Your task to perform on an android device: Search for Italian restaurants on Maps Image 0: 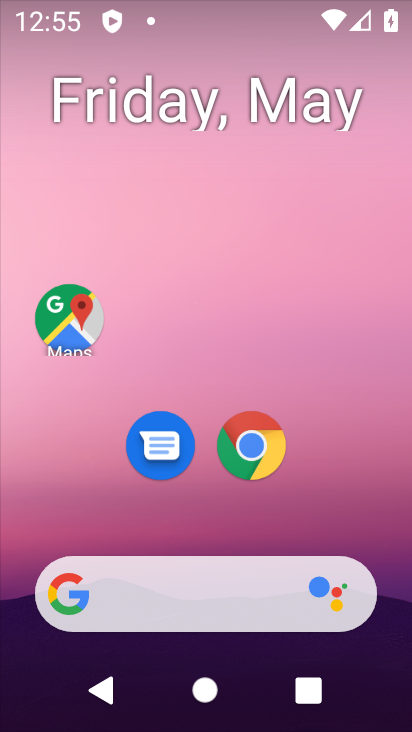
Step 0: click (68, 298)
Your task to perform on an android device: Search for Italian restaurants on Maps Image 1: 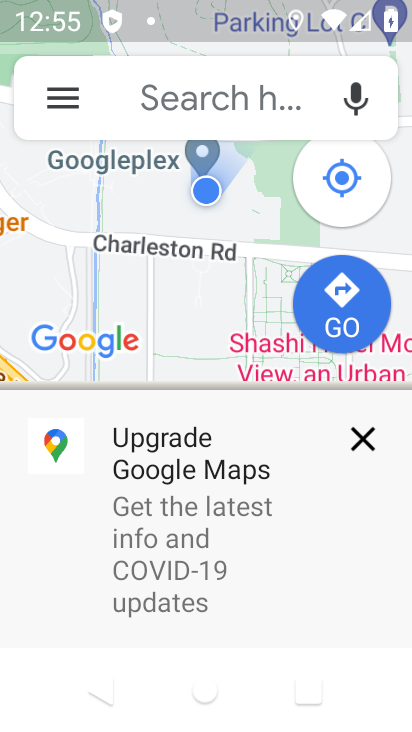
Step 1: click (169, 98)
Your task to perform on an android device: Search for Italian restaurants on Maps Image 2: 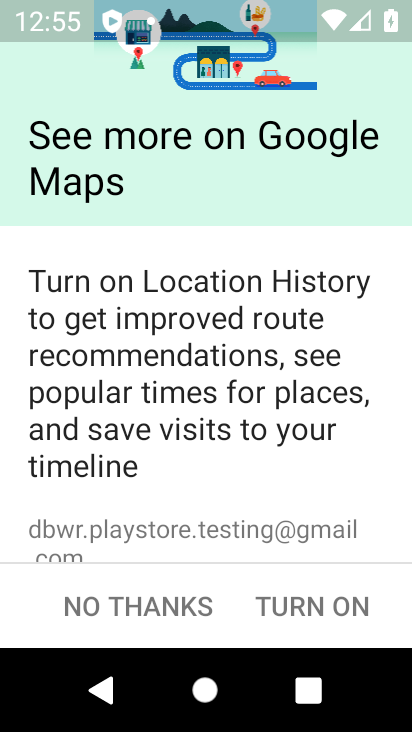
Step 2: click (196, 595)
Your task to perform on an android device: Search for Italian restaurants on Maps Image 3: 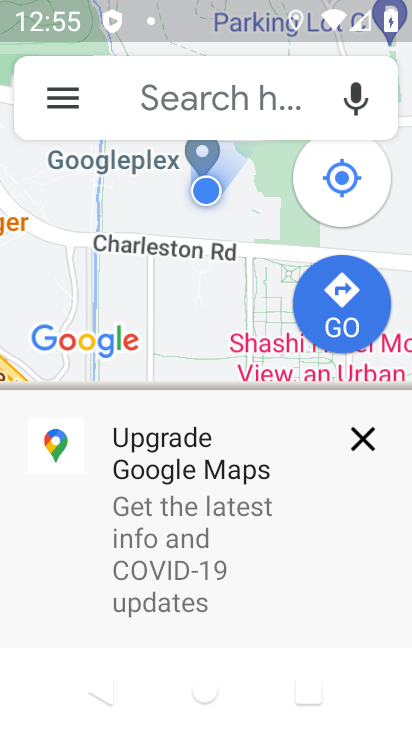
Step 3: click (210, 106)
Your task to perform on an android device: Search for Italian restaurants on Maps Image 4: 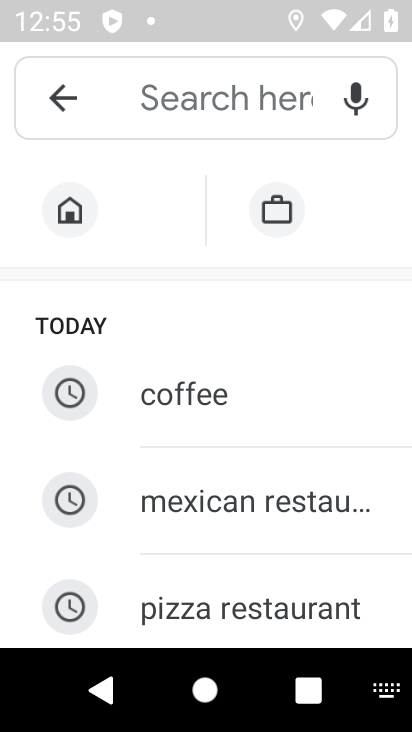
Step 4: type "italian restaurants"
Your task to perform on an android device: Search for Italian restaurants on Maps Image 5: 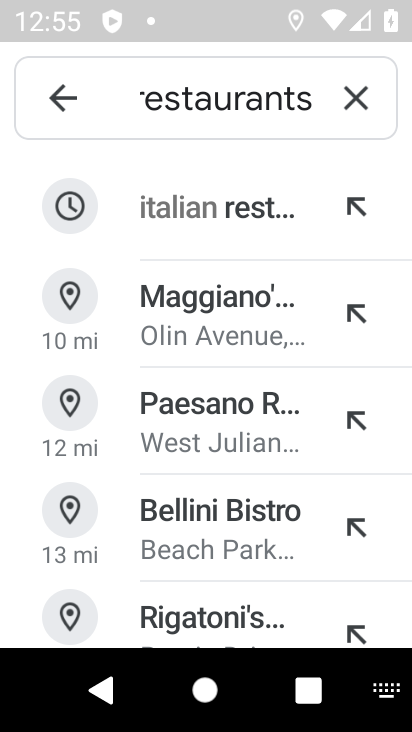
Step 5: click (279, 201)
Your task to perform on an android device: Search for Italian restaurants on Maps Image 6: 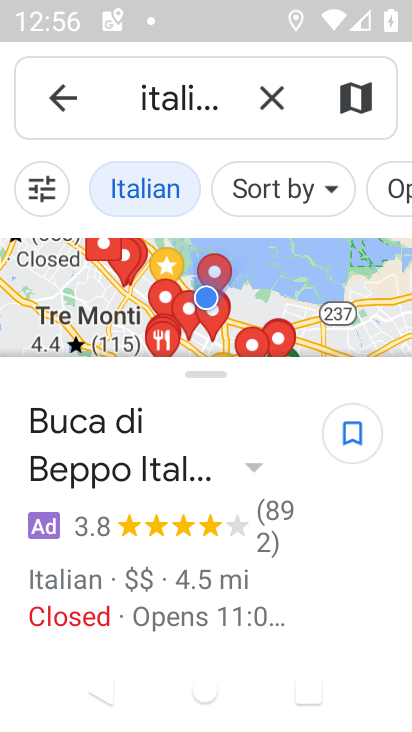
Step 6: task complete